Your task to perform on an android device: Open Google Chrome and click the shortcut for Amazon.com Image 0: 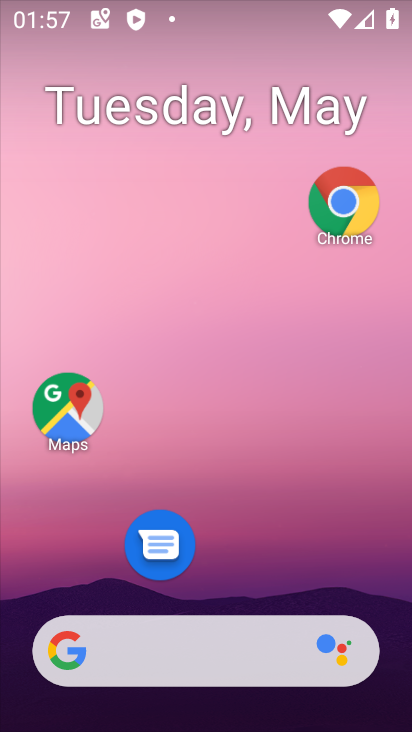
Step 0: click (352, 212)
Your task to perform on an android device: Open Google Chrome and click the shortcut for Amazon.com Image 1: 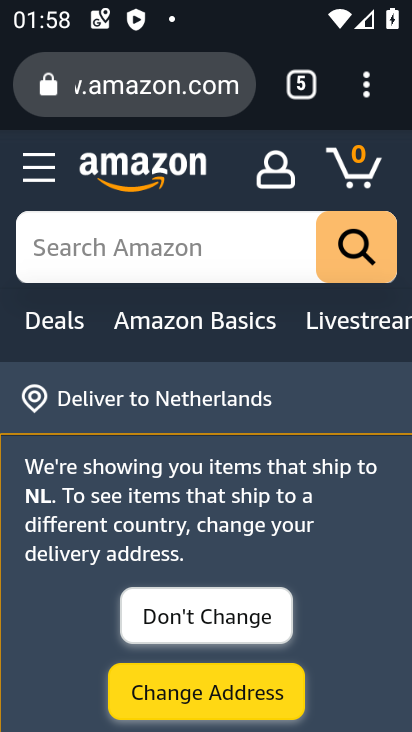
Step 1: task complete